Your task to perform on an android device: Go to network settings Image 0: 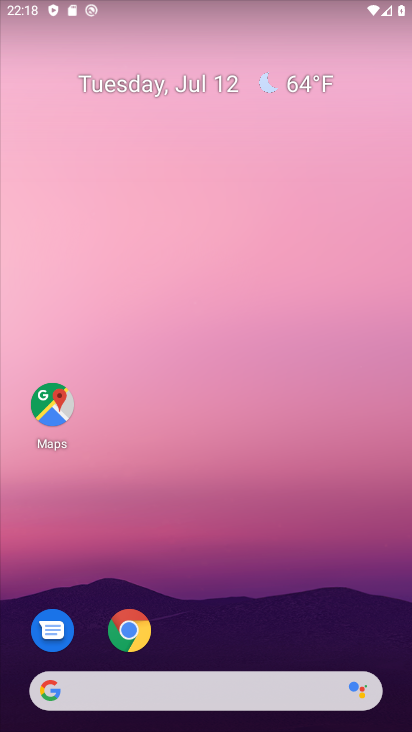
Step 0: drag from (217, 658) to (174, 101)
Your task to perform on an android device: Go to network settings Image 1: 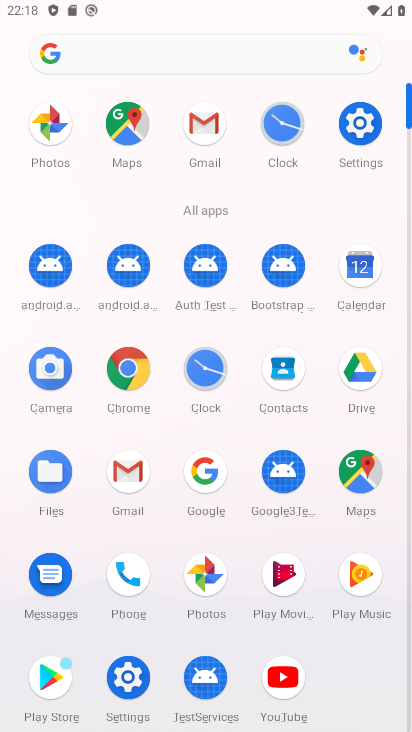
Step 1: click (361, 114)
Your task to perform on an android device: Go to network settings Image 2: 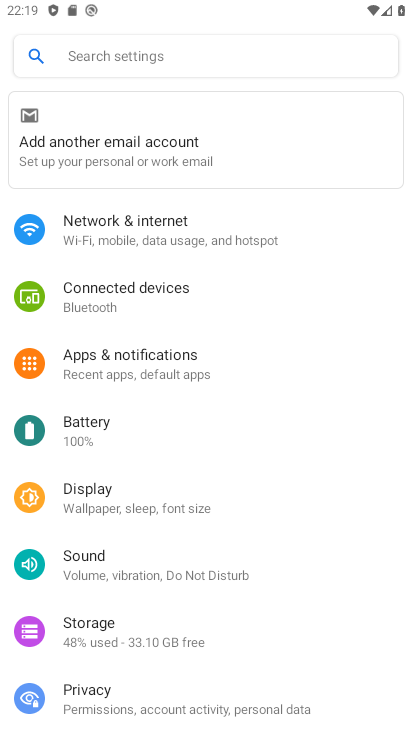
Step 2: click (101, 231)
Your task to perform on an android device: Go to network settings Image 3: 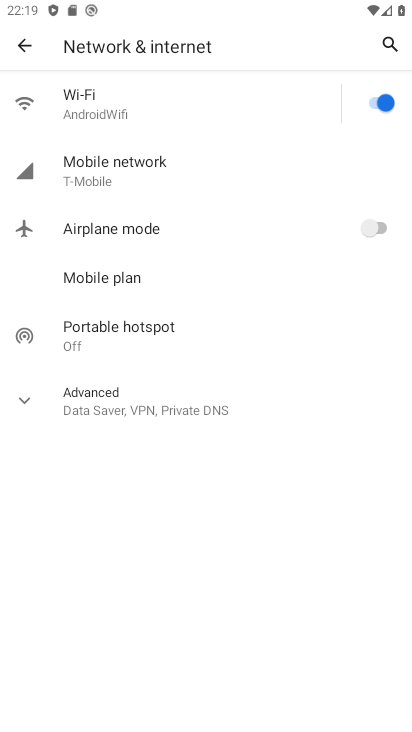
Step 3: click (162, 162)
Your task to perform on an android device: Go to network settings Image 4: 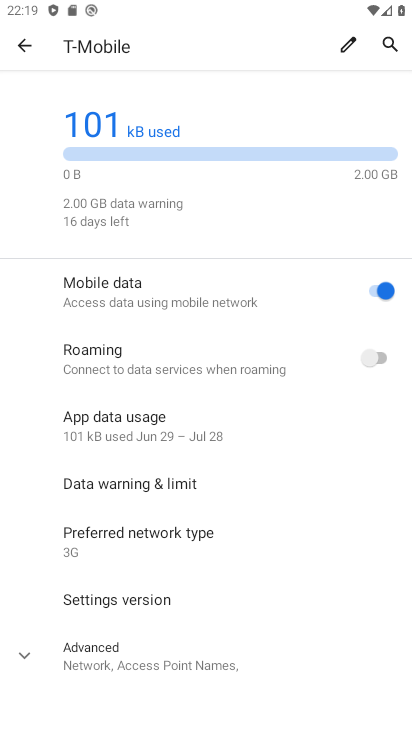
Step 4: task complete